Your task to perform on an android device: Open wifi settings Image 0: 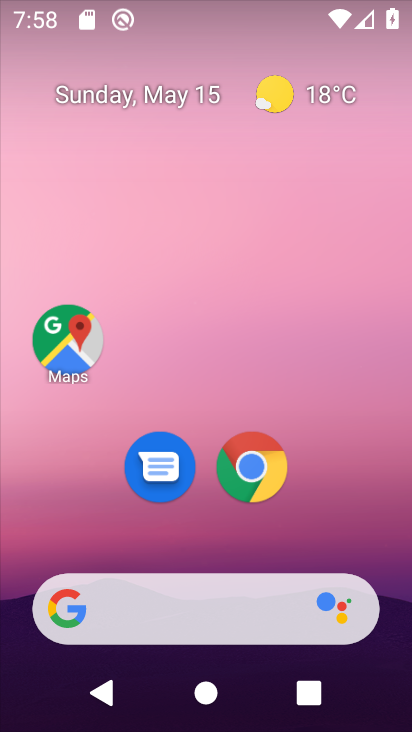
Step 0: drag from (318, 521) to (357, 42)
Your task to perform on an android device: Open wifi settings Image 1: 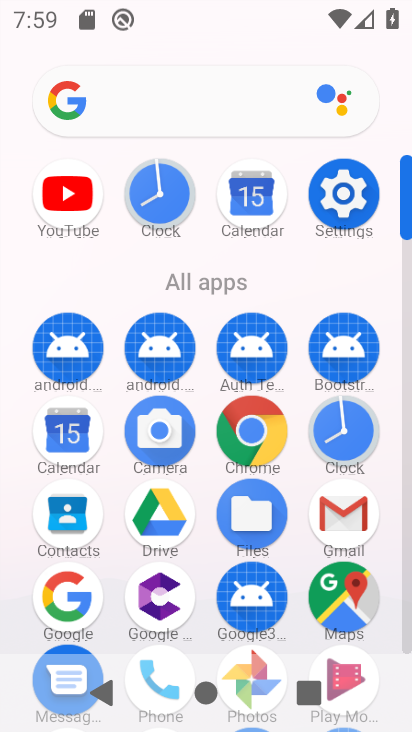
Step 1: click (342, 190)
Your task to perform on an android device: Open wifi settings Image 2: 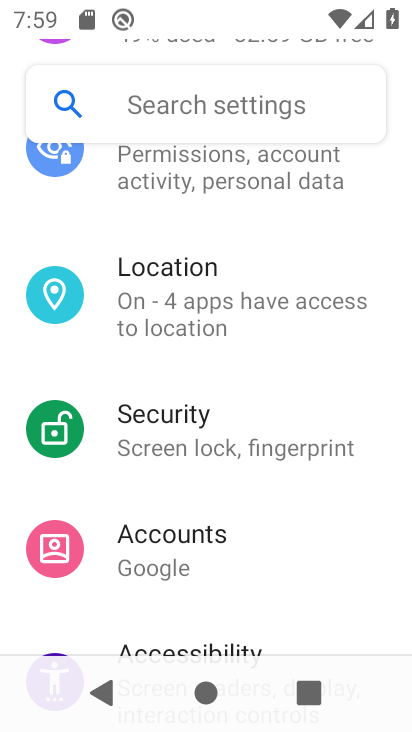
Step 2: drag from (209, 226) to (243, 477)
Your task to perform on an android device: Open wifi settings Image 3: 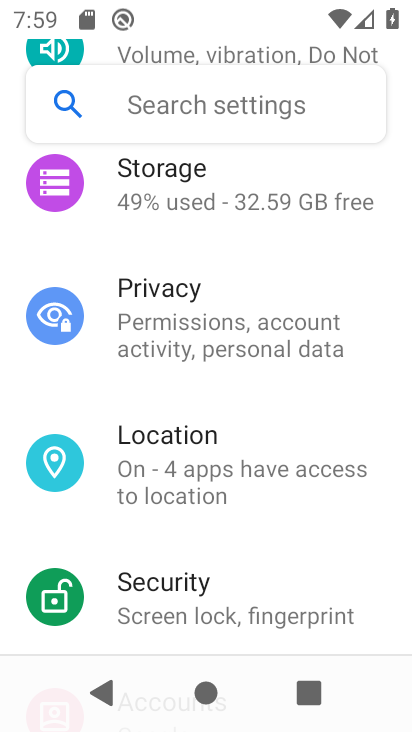
Step 3: drag from (238, 312) to (270, 569)
Your task to perform on an android device: Open wifi settings Image 4: 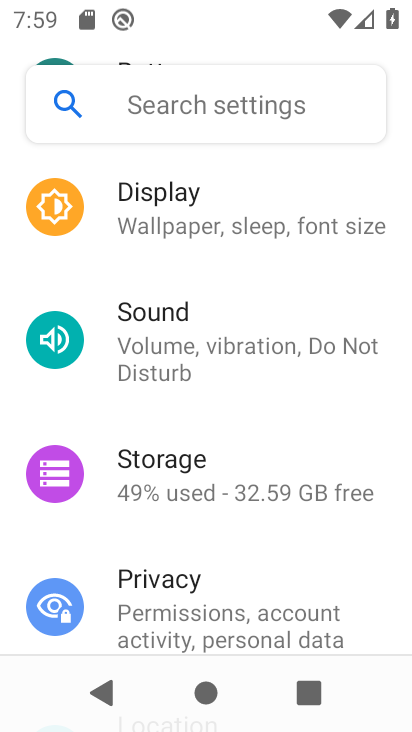
Step 4: drag from (231, 309) to (228, 621)
Your task to perform on an android device: Open wifi settings Image 5: 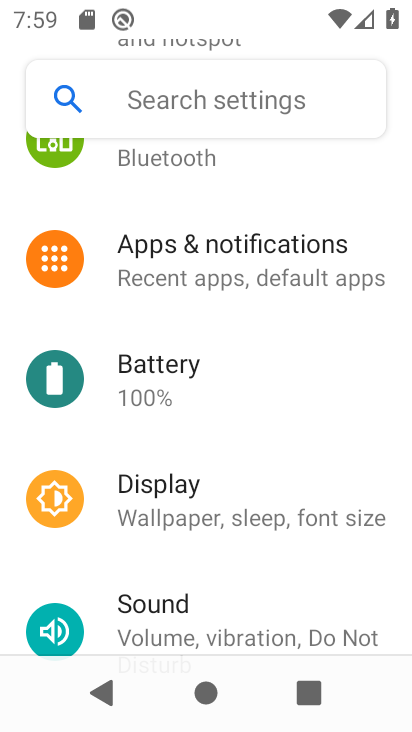
Step 5: drag from (178, 315) to (190, 559)
Your task to perform on an android device: Open wifi settings Image 6: 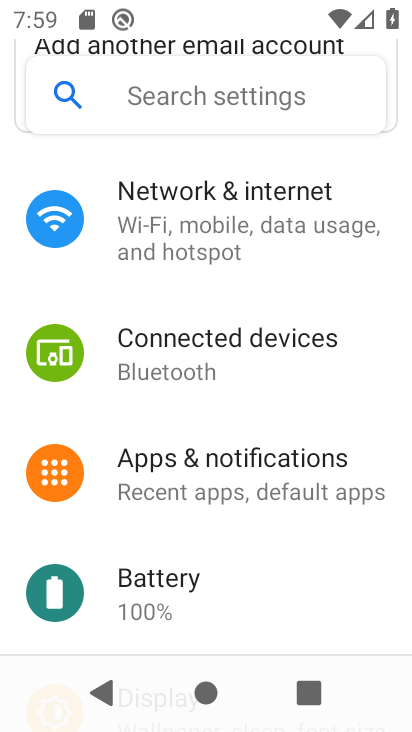
Step 6: click (135, 242)
Your task to perform on an android device: Open wifi settings Image 7: 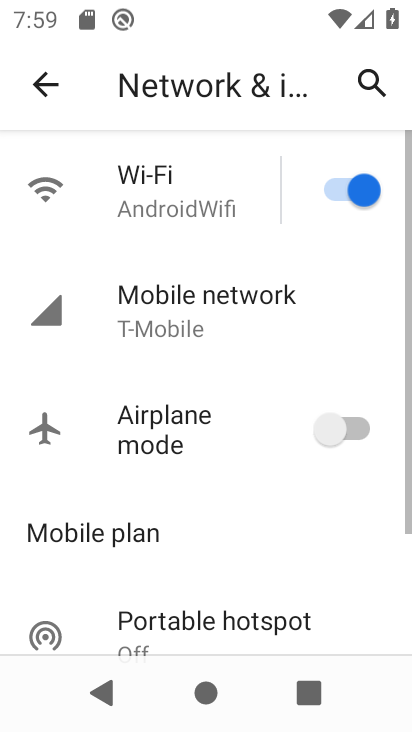
Step 7: click (149, 223)
Your task to perform on an android device: Open wifi settings Image 8: 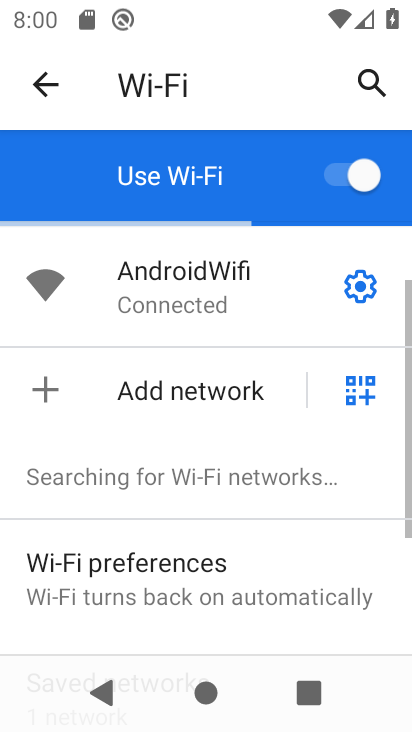
Step 8: task complete